Your task to perform on an android device: turn on the 12-hour format for clock Image 0: 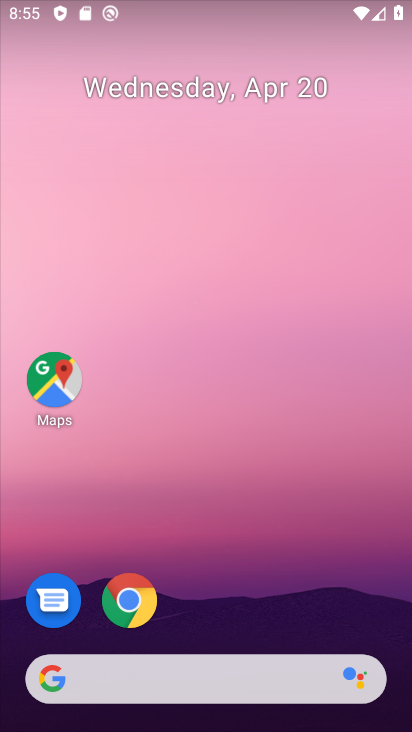
Step 0: drag from (229, 665) to (232, 50)
Your task to perform on an android device: turn on the 12-hour format for clock Image 1: 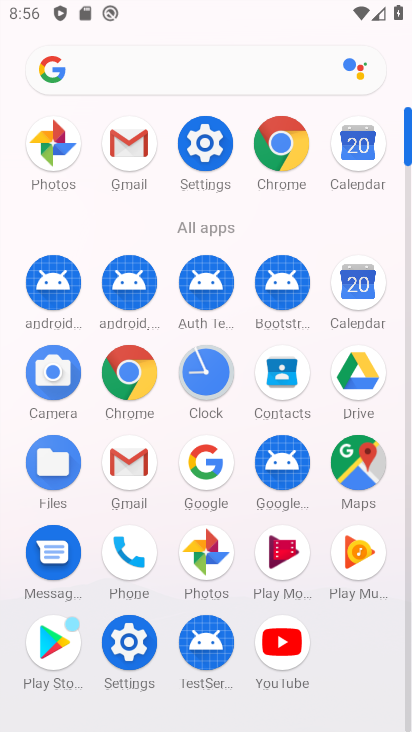
Step 1: click (148, 624)
Your task to perform on an android device: turn on the 12-hour format for clock Image 2: 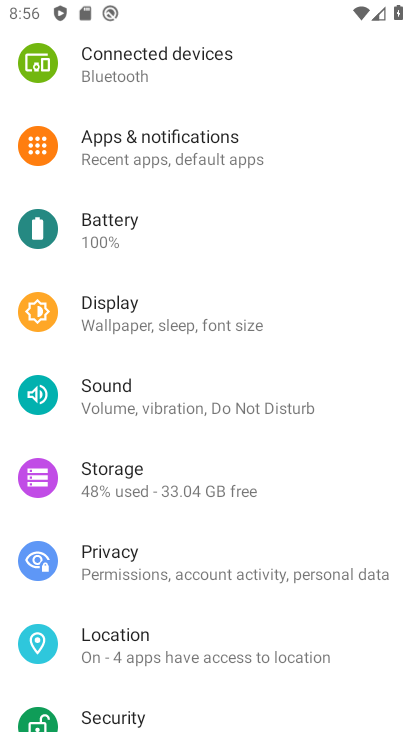
Step 2: drag from (230, 628) to (135, 179)
Your task to perform on an android device: turn on the 12-hour format for clock Image 3: 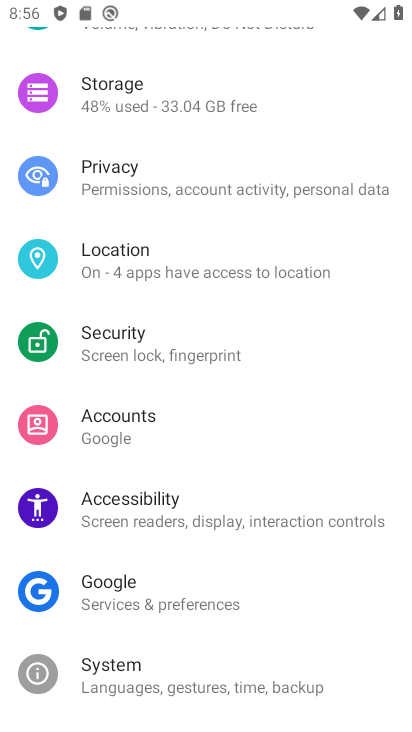
Step 3: drag from (144, 535) to (42, 528)
Your task to perform on an android device: turn on the 12-hour format for clock Image 4: 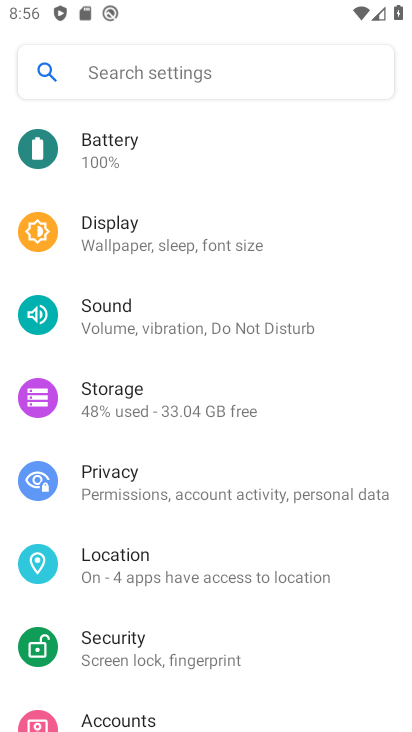
Step 4: drag from (183, 633) to (159, 236)
Your task to perform on an android device: turn on the 12-hour format for clock Image 5: 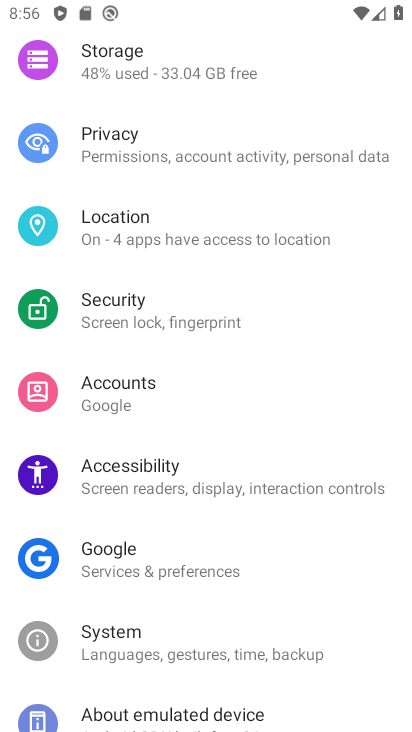
Step 5: drag from (164, 681) to (161, 434)
Your task to perform on an android device: turn on the 12-hour format for clock Image 6: 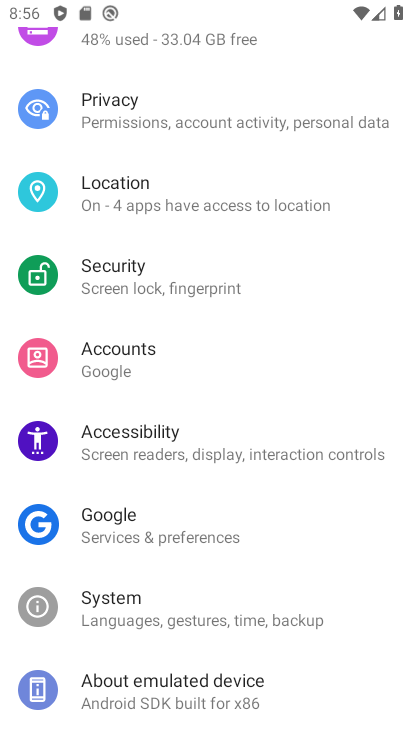
Step 6: click (141, 609)
Your task to perform on an android device: turn on the 12-hour format for clock Image 7: 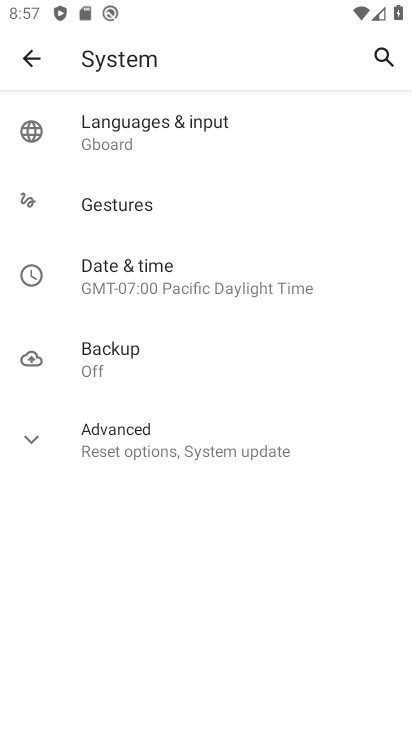
Step 7: click (150, 270)
Your task to perform on an android device: turn on the 12-hour format for clock Image 8: 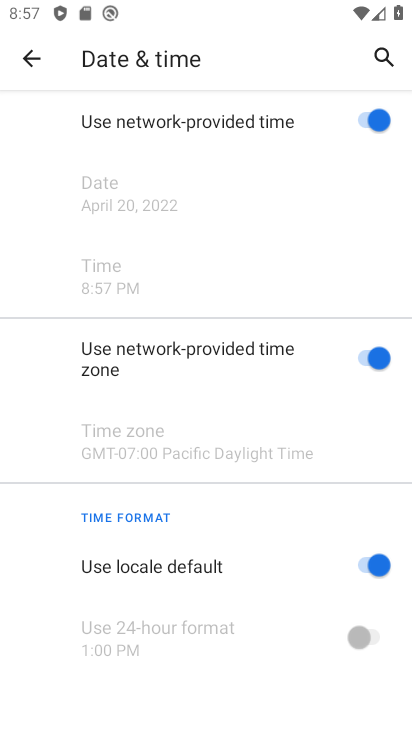
Step 8: task complete